Your task to perform on an android device: turn off picture-in-picture Image 0: 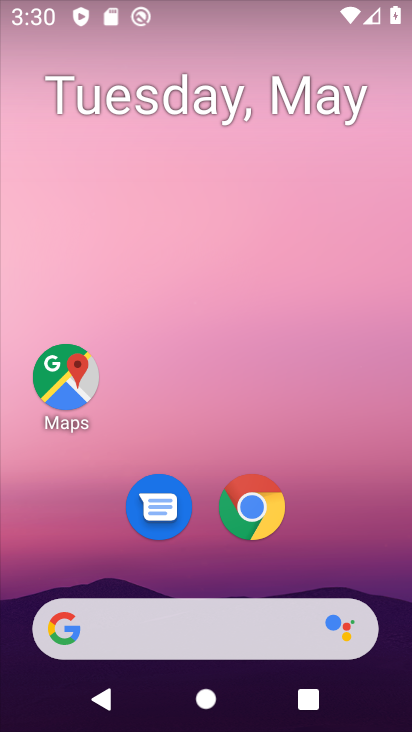
Step 0: click (258, 518)
Your task to perform on an android device: turn off picture-in-picture Image 1: 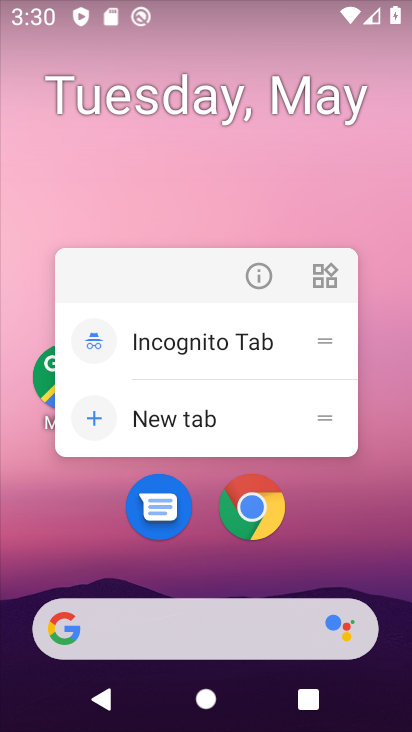
Step 1: click (257, 281)
Your task to perform on an android device: turn off picture-in-picture Image 2: 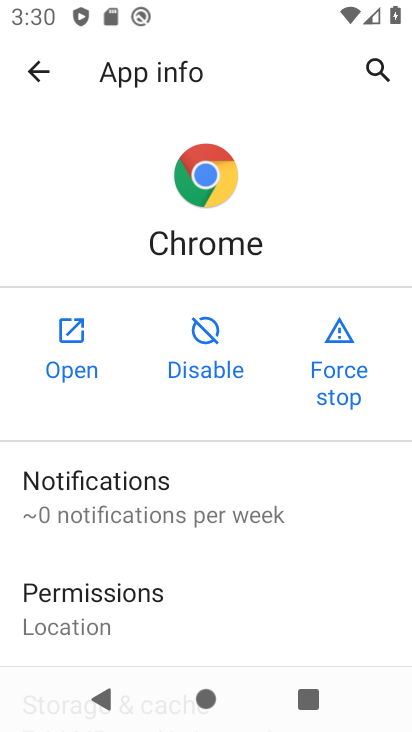
Step 2: drag from (302, 644) to (299, 218)
Your task to perform on an android device: turn off picture-in-picture Image 3: 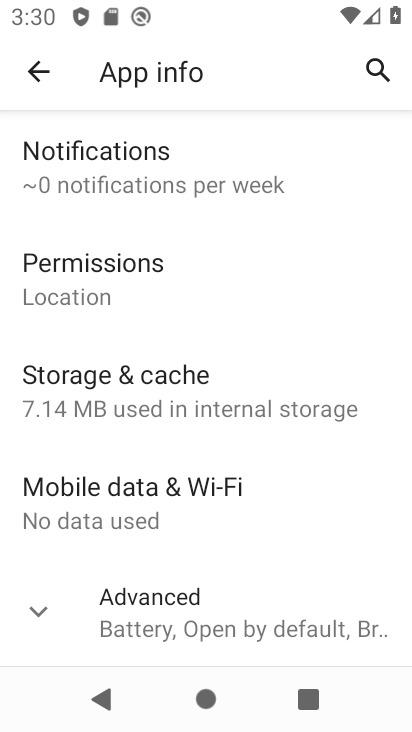
Step 3: click (232, 603)
Your task to perform on an android device: turn off picture-in-picture Image 4: 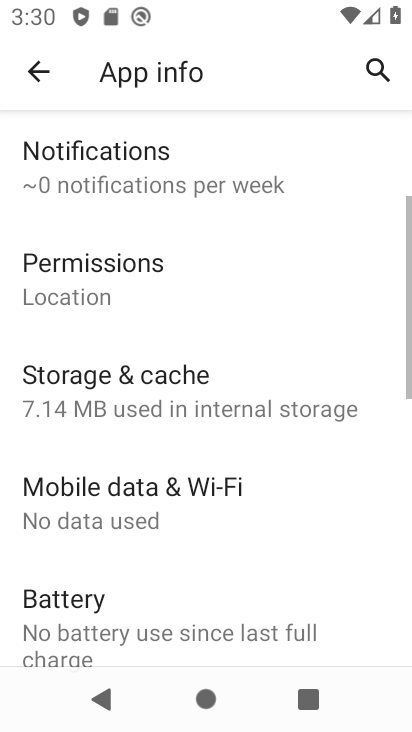
Step 4: drag from (245, 542) to (222, 195)
Your task to perform on an android device: turn off picture-in-picture Image 5: 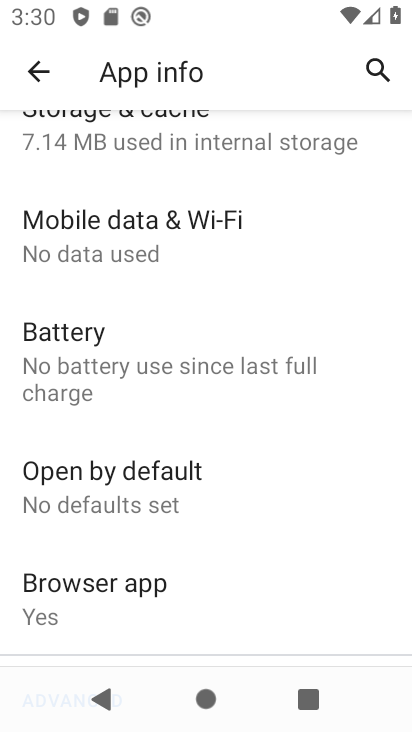
Step 5: drag from (237, 608) to (248, 235)
Your task to perform on an android device: turn off picture-in-picture Image 6: 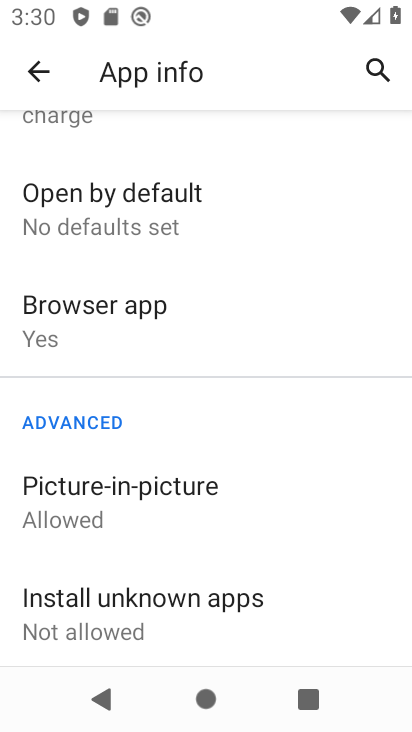
Step 6: click (125, 513)
Your task to perform on an android device: turn off picture-in-picture Image 7: 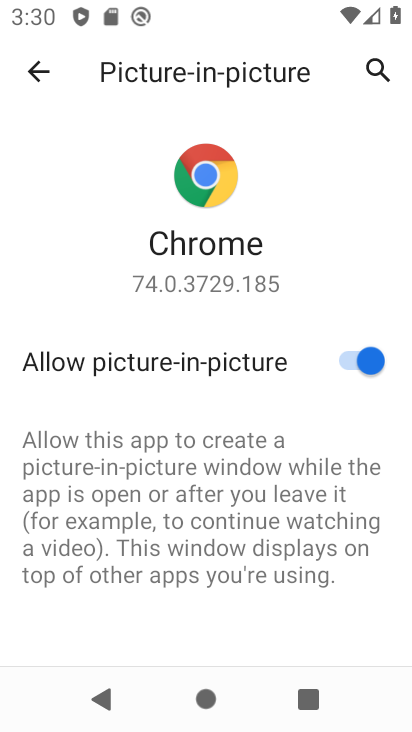
Step 7: click (369, 359)
Your task to perform on an android device: turn off picture-in-picture Image 8: 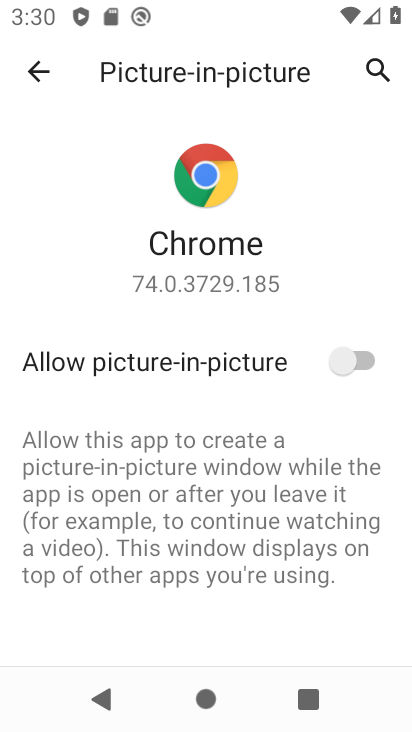
Step 8: task complete